Your task to perform on an android device: What is the recent news? Image 0: 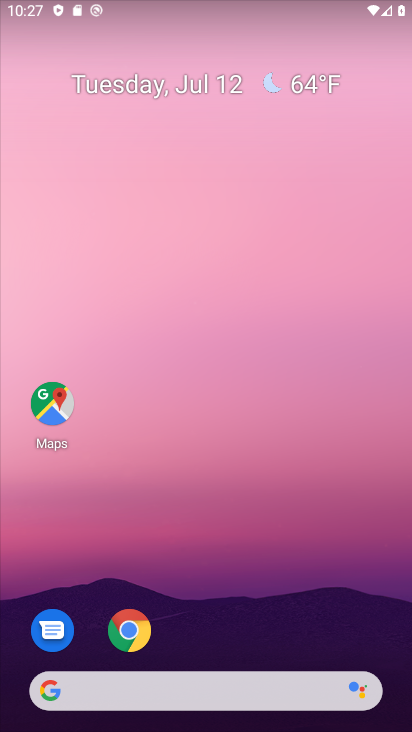
Step 0: drag from (41, 283) to (381, 307)
Your task to perform on an android device: What is the recent news? Image 1: 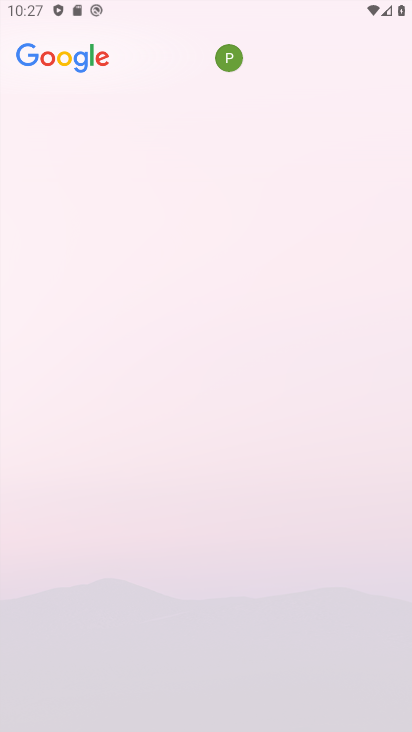
Step 1: task complete